Your task to perform on an android device: open a bookmark in the chrome app Image 0: 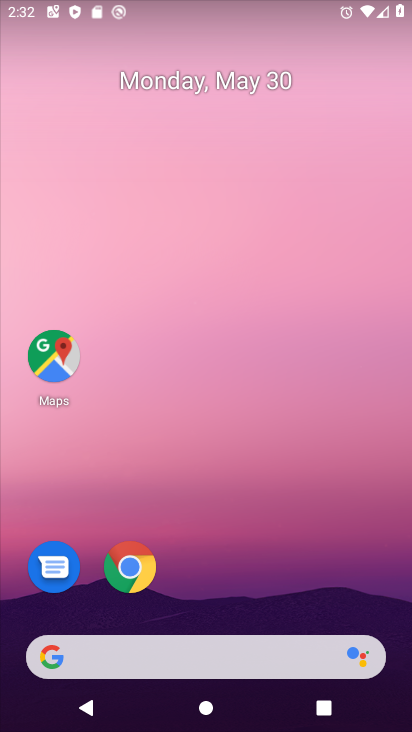
Step 0: drag from (216, 586) to (273, 22)
Your task to perform on an android device: open a bookmark in the chrome app Image 1: 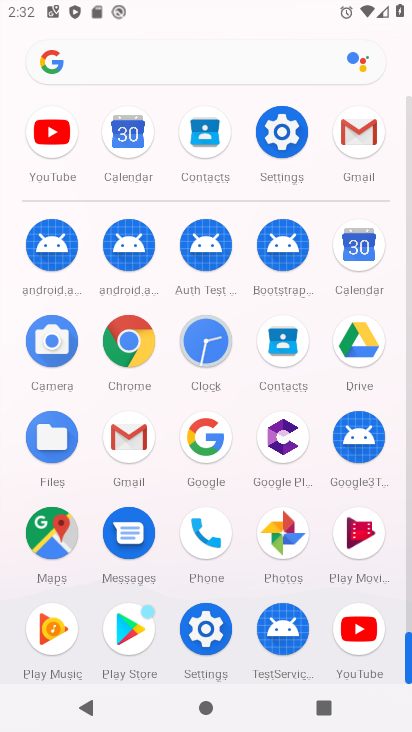
Step 1: click (135, 351)
Your task to perform on an android device: open a bookmark in the chrome app Image 2: 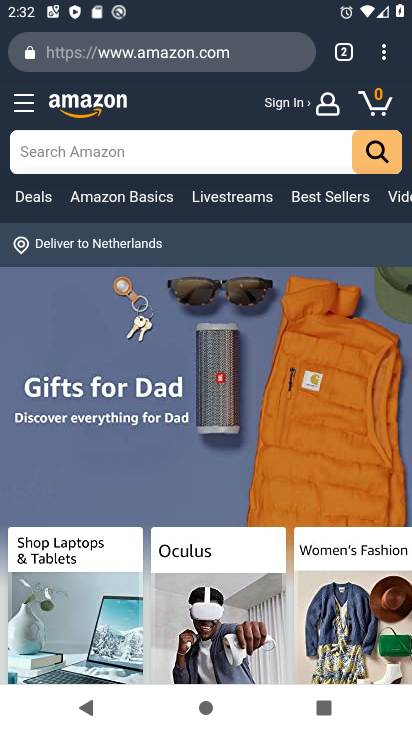
Step 2: click (379, 48)
Your task to perform on an android device: open a bookmark in the chrome app Image 3: 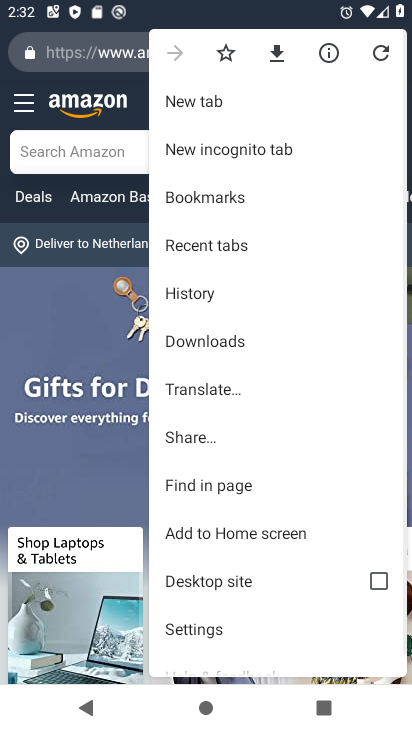
Step 3: click (215, 195)
Your task to perform on an android device: open a bookmark in the chrome app Image 4: 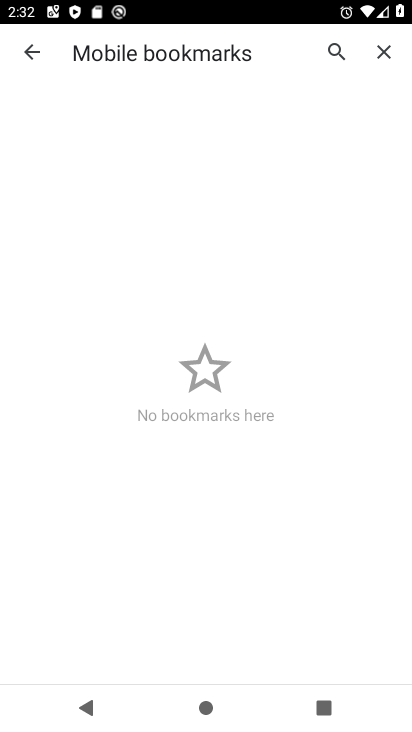
Step 4: task complete